Your task to perform on an android device: toggle pop-ups in chrome Image 0: 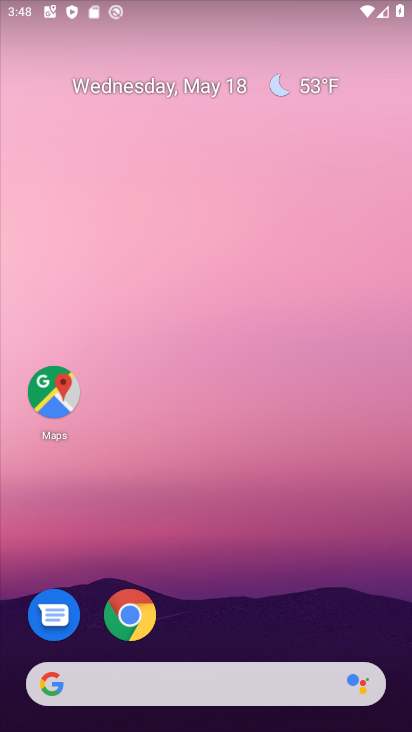
Step 0: click (140, 609)
Your task to perform on an android device: toggle pop-ups in chrome Image 1: 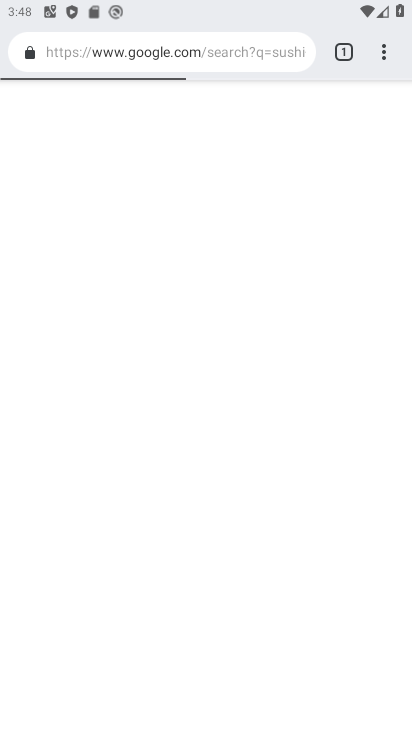
Step 1: drag from (390, 32) to (209, 579)
Your task to perform on an android device: toggle pop-ups in chrome Image 2: 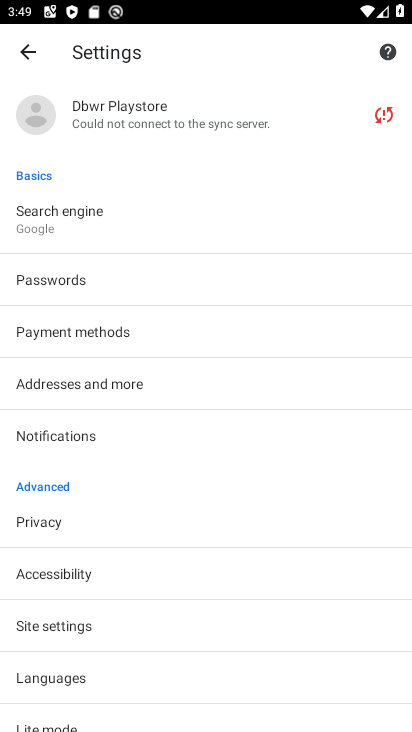
Step 2: drag from (144, 498) to (212, 253)
Your task to perform on an android device: toggle pop-ups in chrome Image 3: 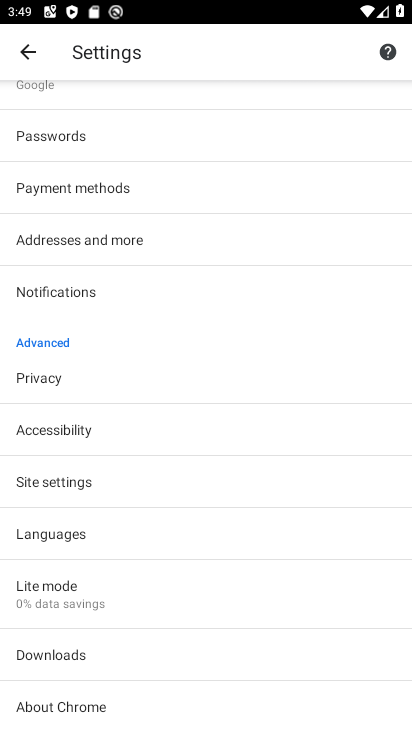
Step 3: click (95, 472)
Your task to perform on an android device: toggle pop-ups in chrome Image 4: 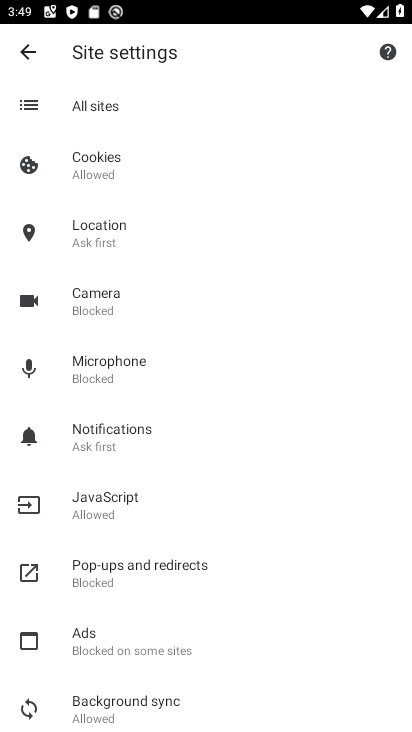
Step 4: drag from (172, 633) to (265, 389)
Your task to perform on an android device: toggle pop-ups in chrome Image 5: 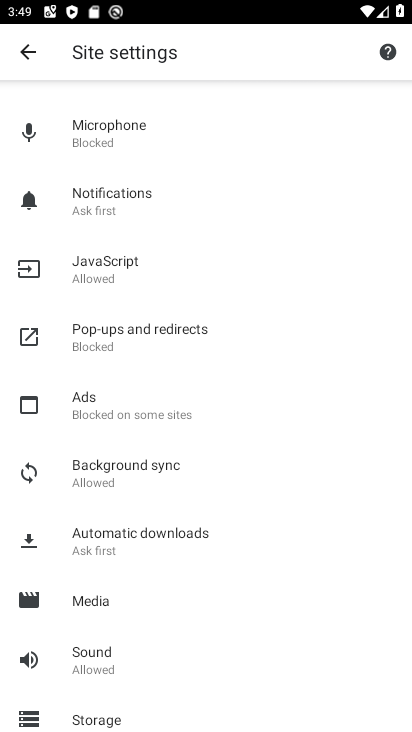
Step 5: click (158, 339)
Your task to perform on an android device: toggle pop-ups in chrome Image 6: 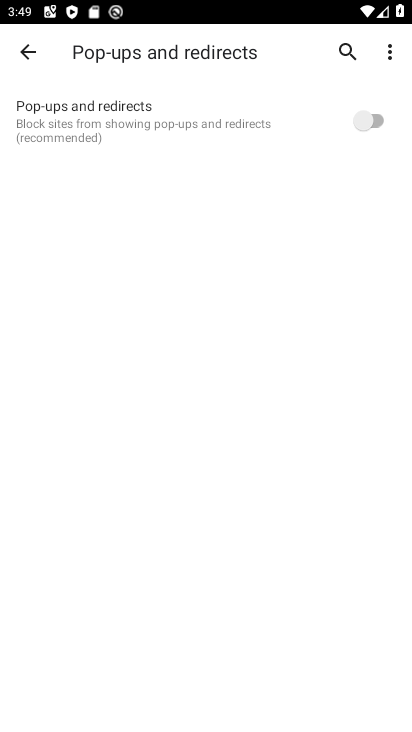
Step 6: click (373, 116)
Your task to perform on an android device: toggle pop-ups in chrome Image 7: 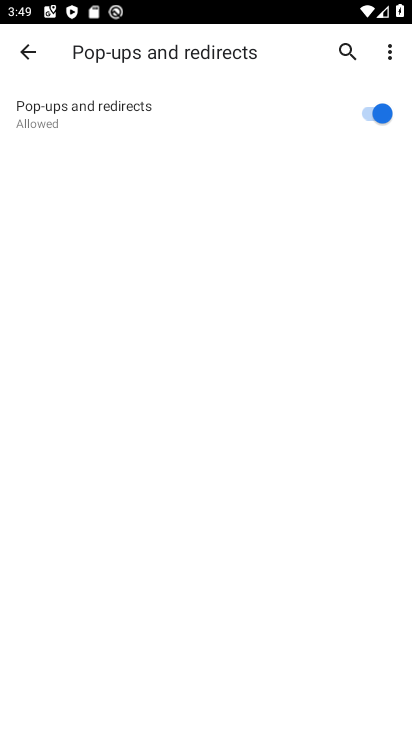
Step 7: task complete